Your task to perform on an android device: check battery use Image 0: 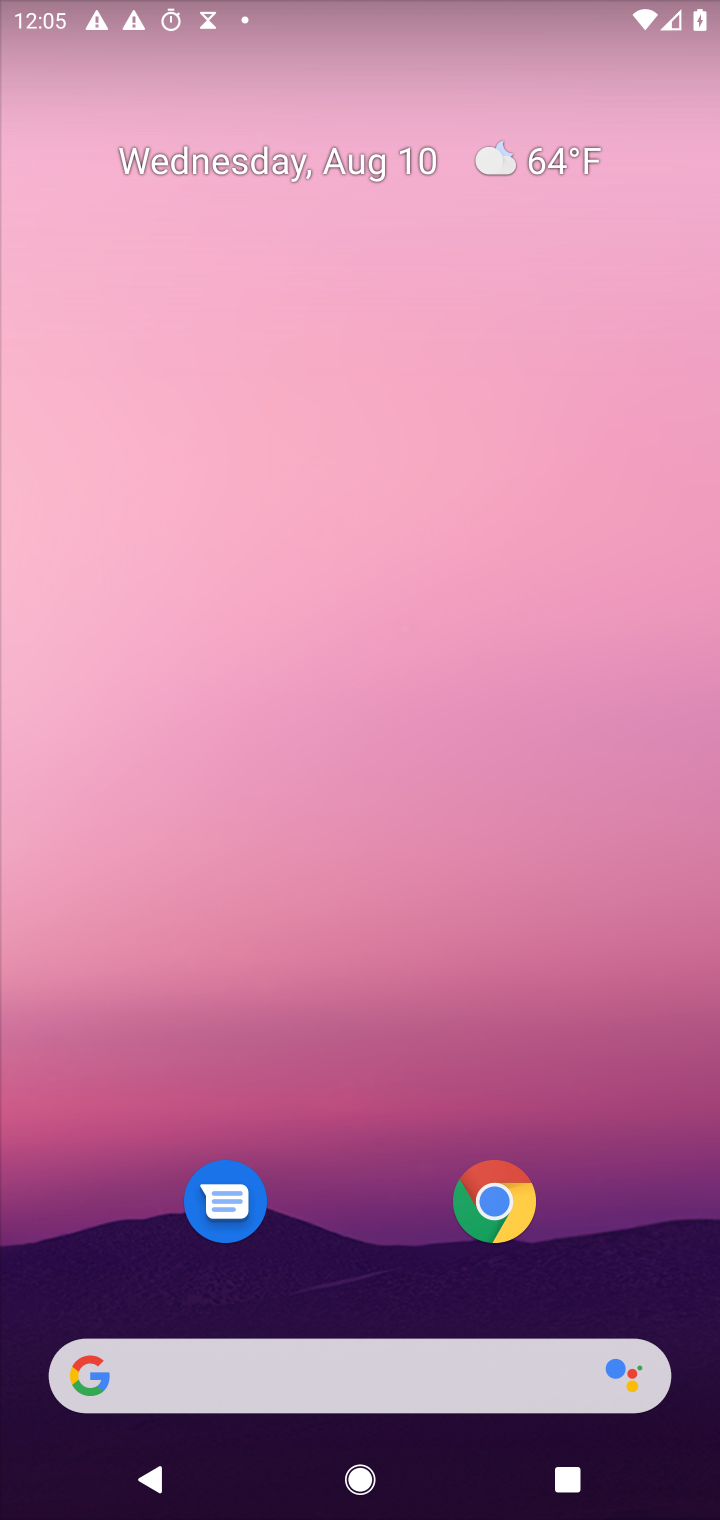
Step 0: press home button
Your task to perform on an android device: check battery use Image 1: 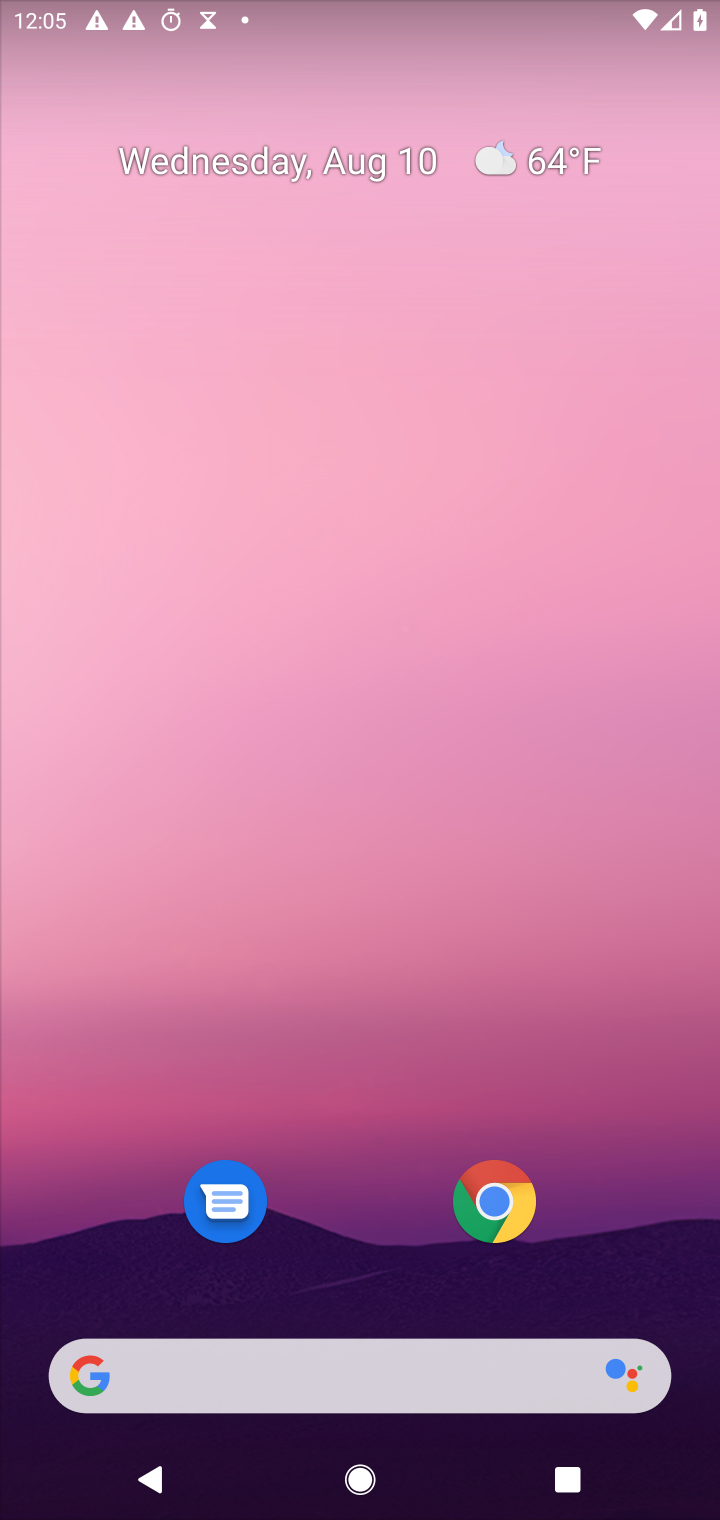
Step 1: drag from (354, 1222) to (338, 107)
Your task to perform on an android device: check battery use Image 2: 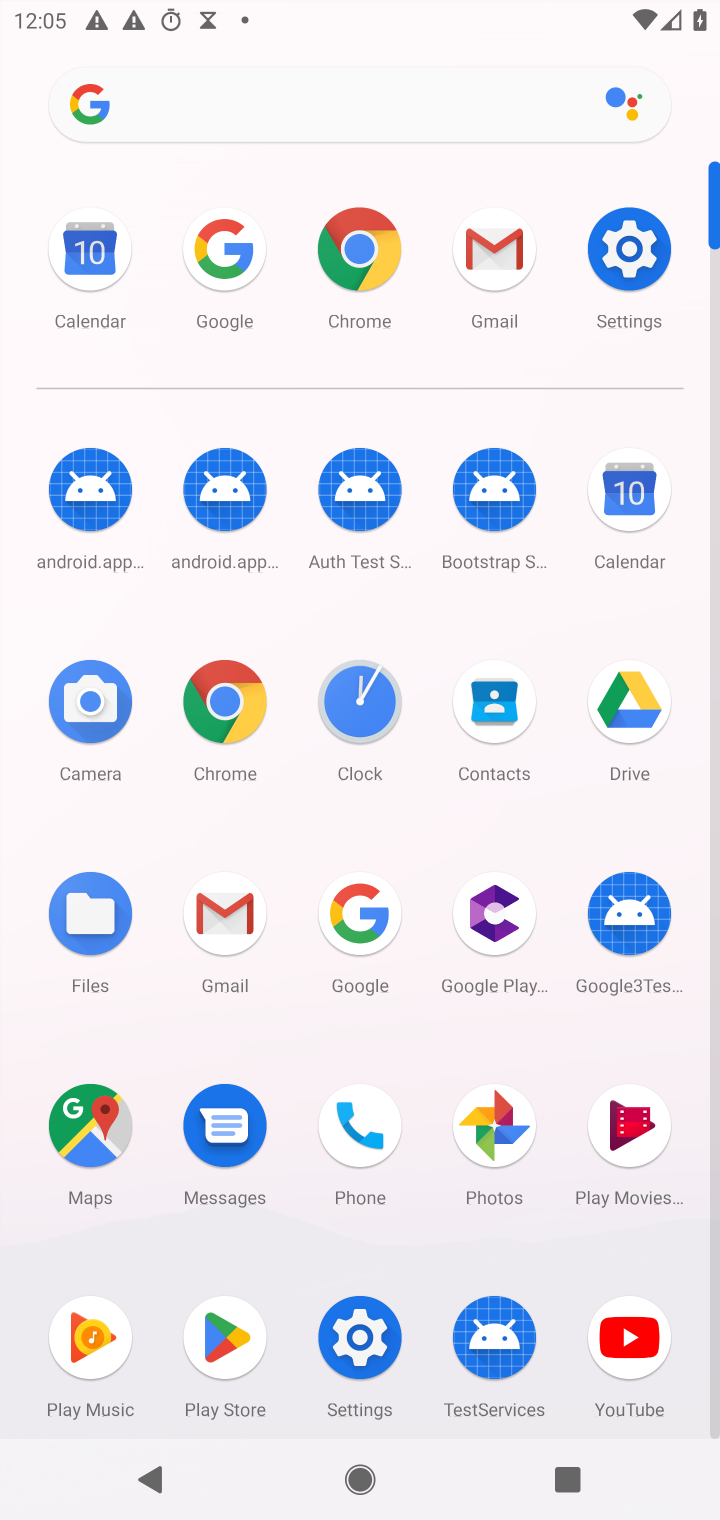
Step 2: click (623, 264)
Your task to perform on an android device: check battery use Image 3: 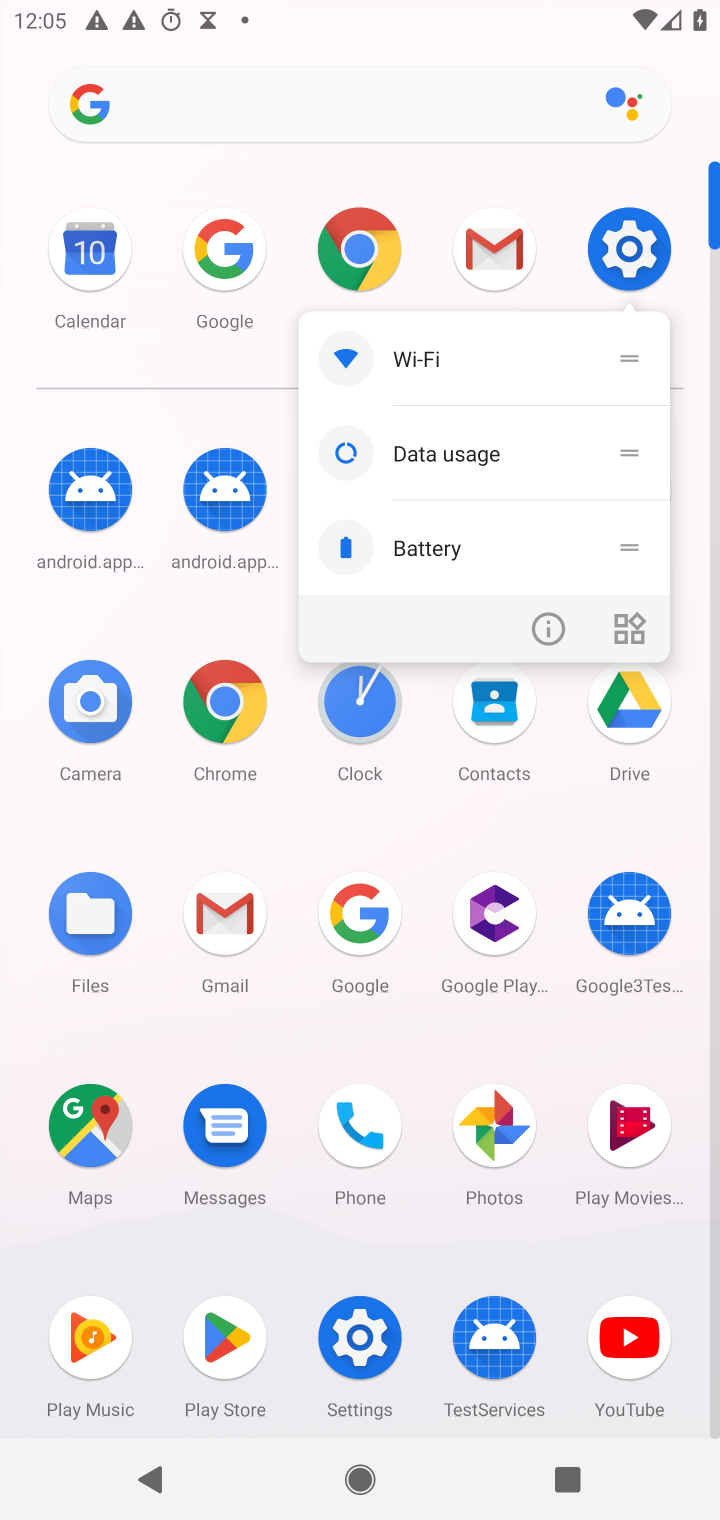
Step 3: click (625, 236)
Your task to perform on an android device: check battery use Image 4: 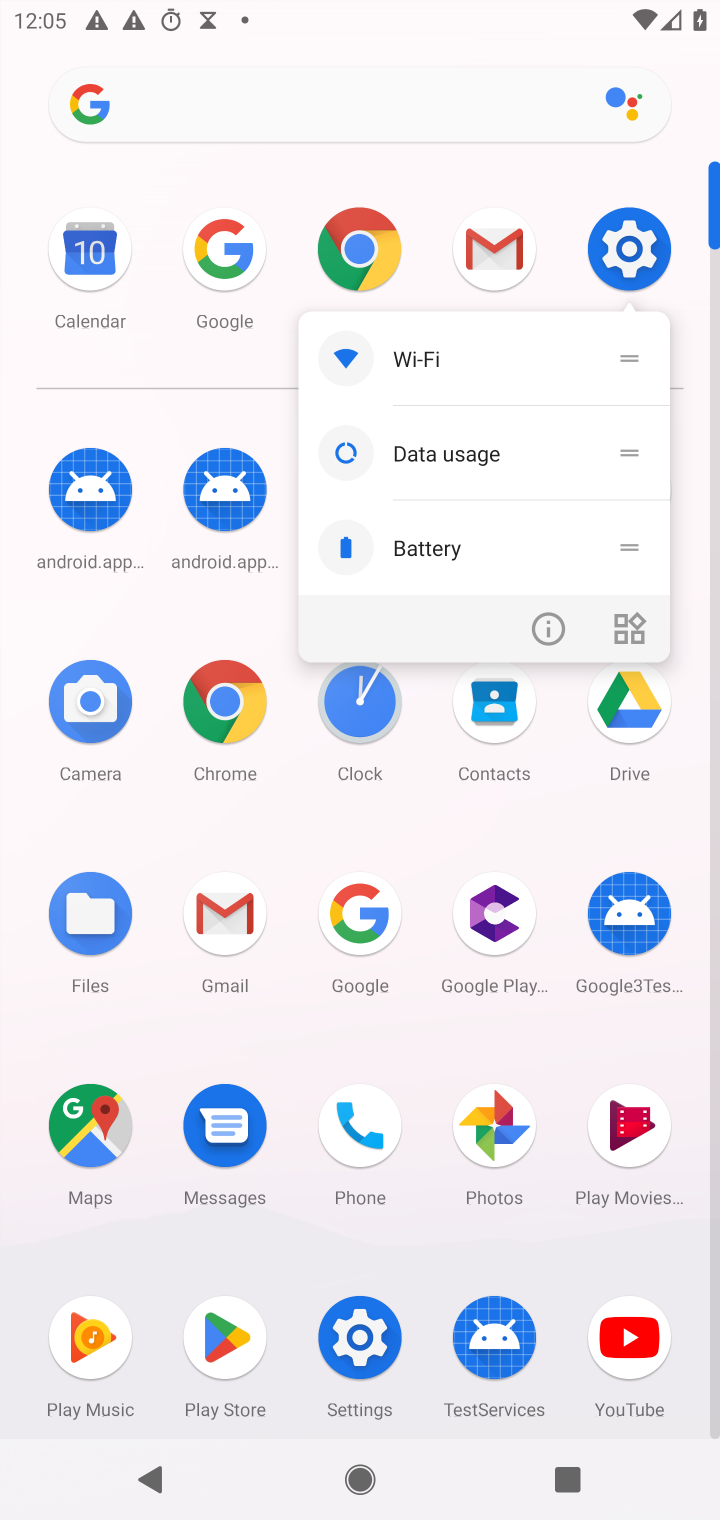
Step 4: click (633, 230)
Your task to perform on an android device: check battery use Image 5: 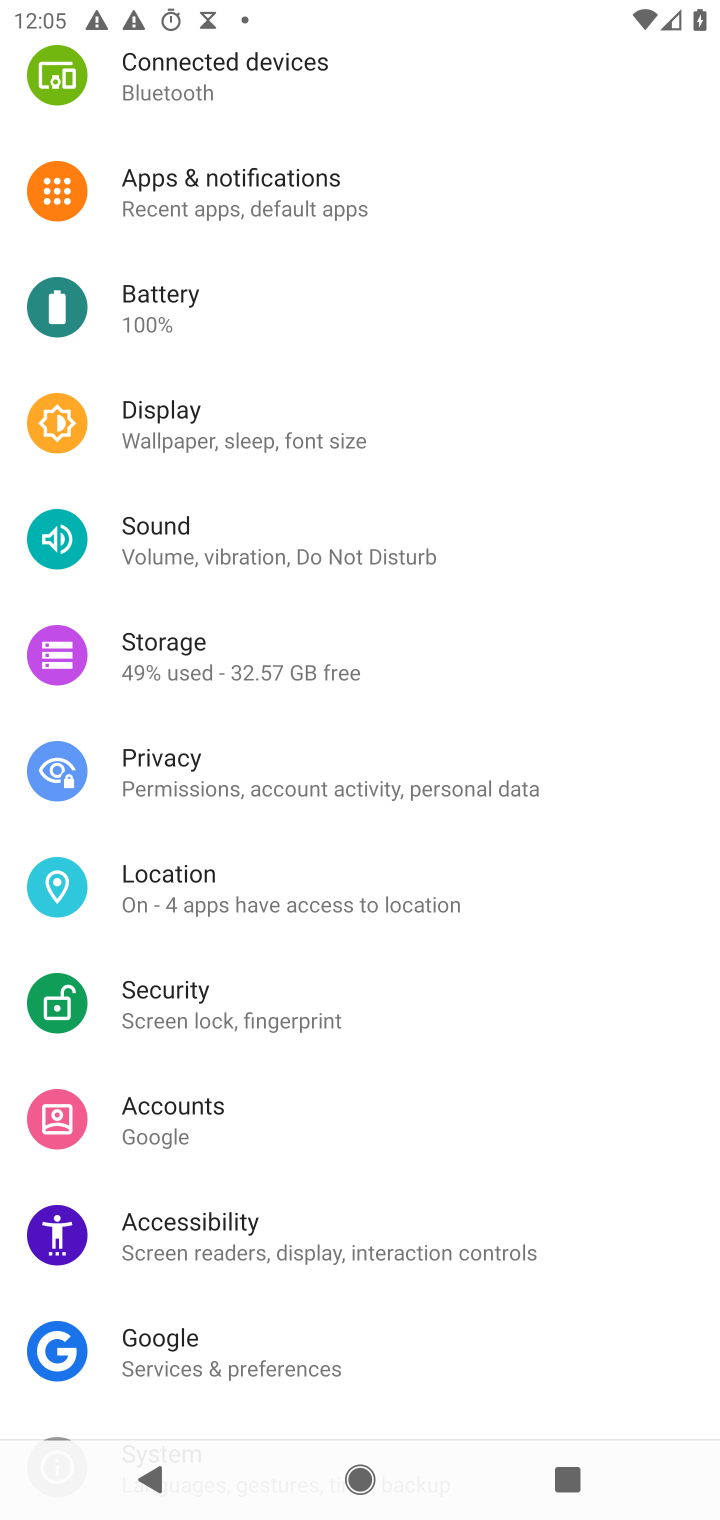
Step 5: click (124, 310)
Your task to perform on an android device: check battery use Image 6: 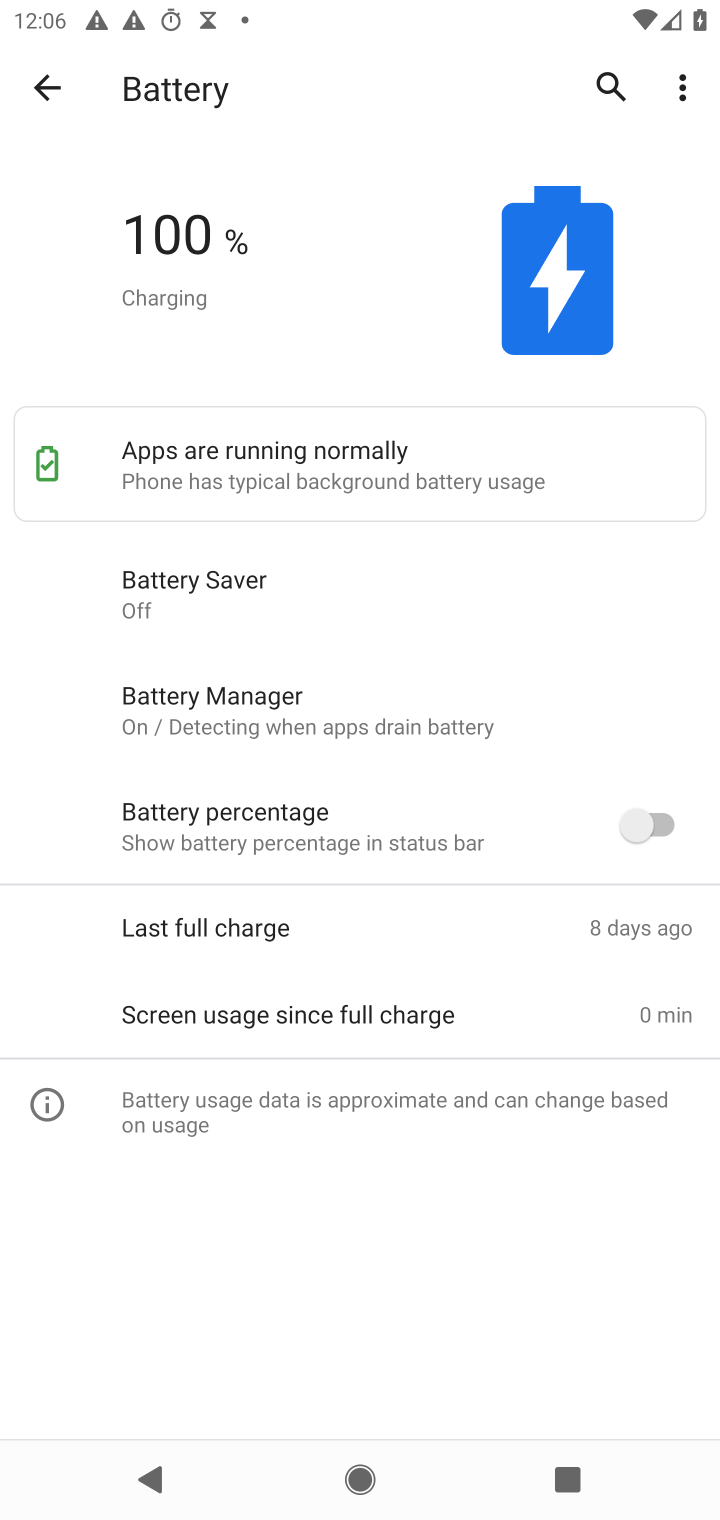
Step 6: task complete